Your task to perform on an android device: Go to sound settings Image 0: 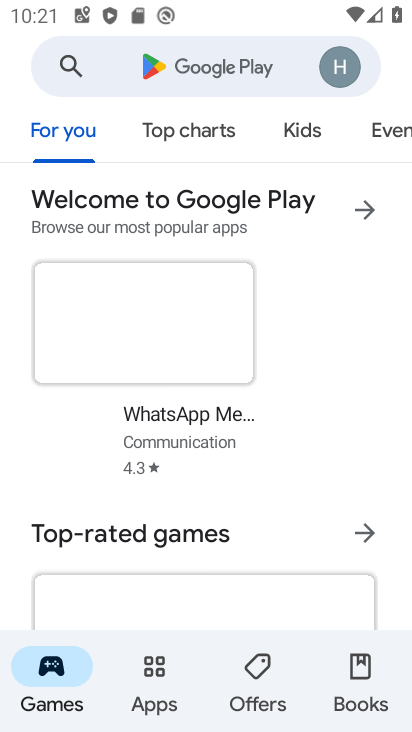
Step 0: press home button
Your task to perform on an android device: Go to sound settings Image 1: 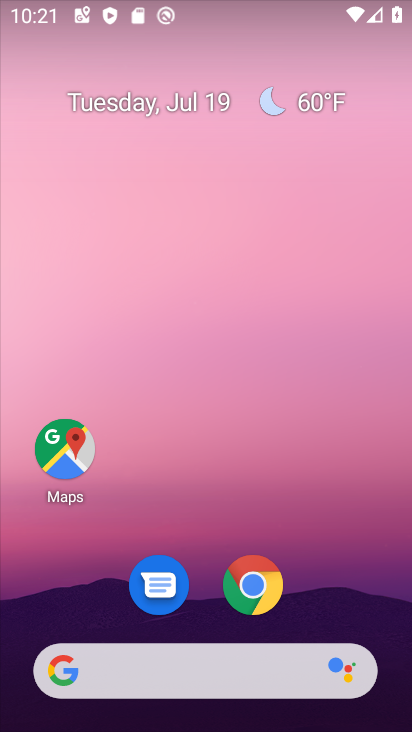
Step 1: drag from (262, 490) to (289, 4)
Your task to perform on an android device: Go to sound settings Image 2: 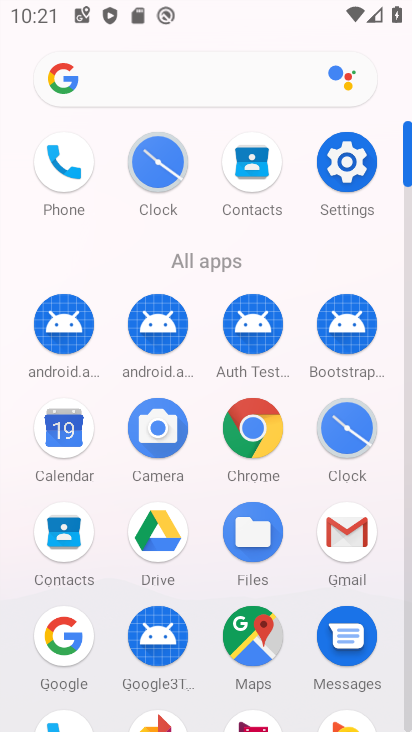
Step 2: click (337, 159)
Your task to perform on an android device: Go to sound settings Image 3: 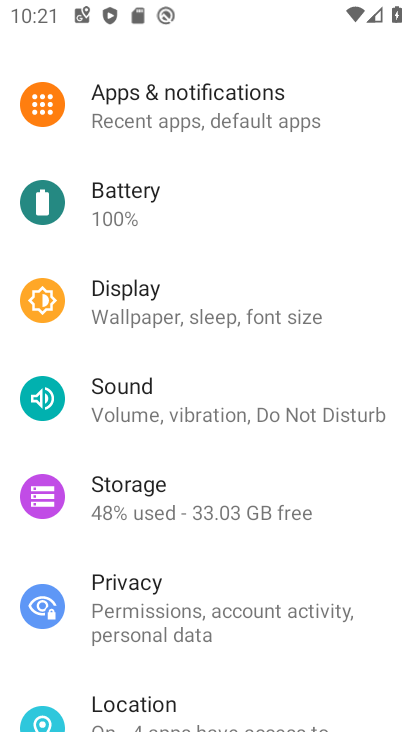
Step 3: click (174, 407)
Your task to perform on an android device: Go to sound settings Image 4: 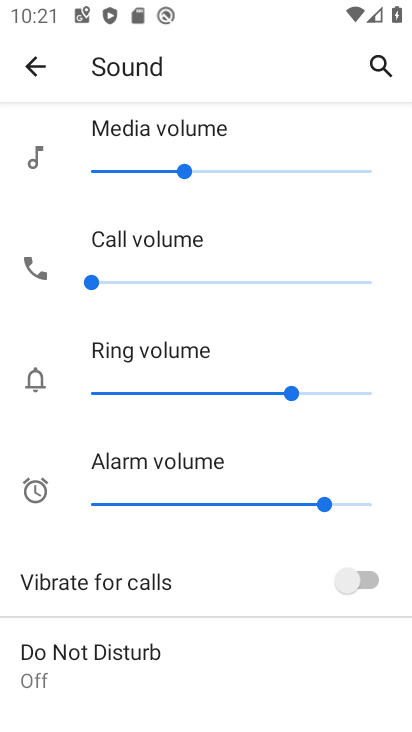
Step 4: task complete